Your task to perform on an android device: check storage Image 0: 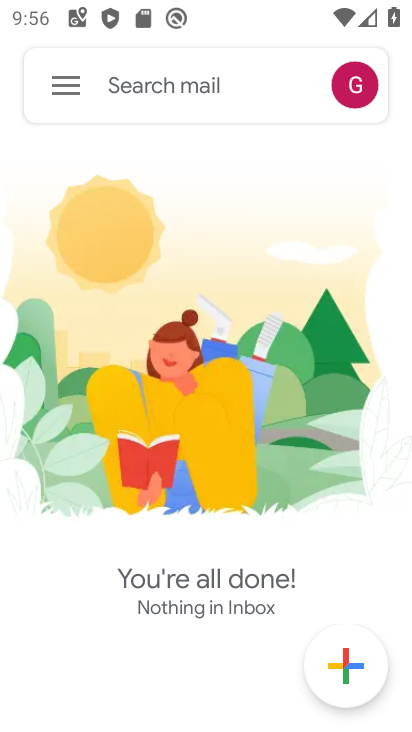
Step 0: press home button
Your task to perform on an android device: check storage Image 1: 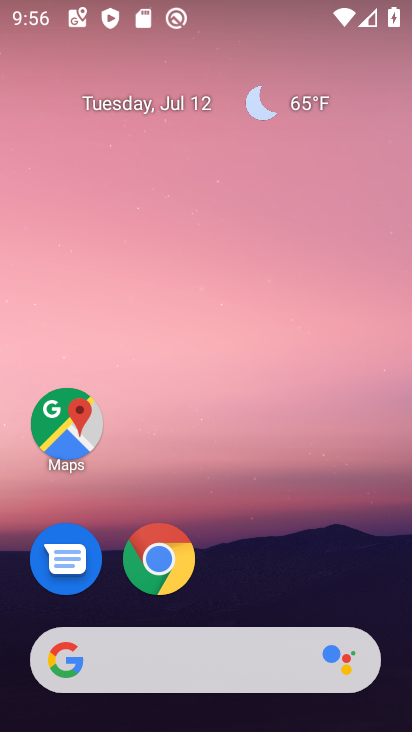
Step 1: drag from (320, 575) to (332, 118)
Your task to perform on an android device: check storage Image 2: 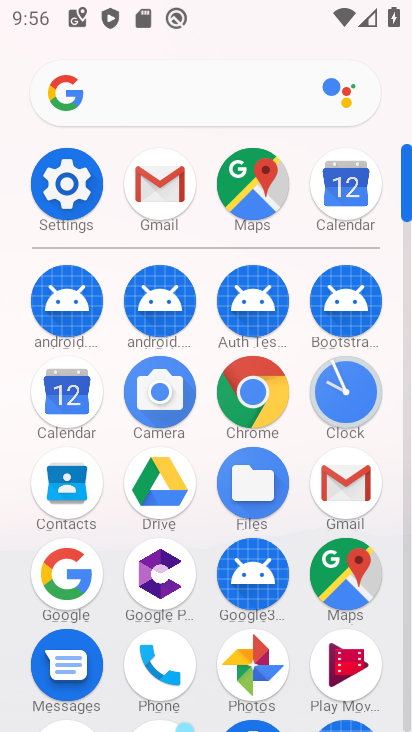
Step 2: click (76, 198)
Your task to perform on an android device: check storage Image 3: 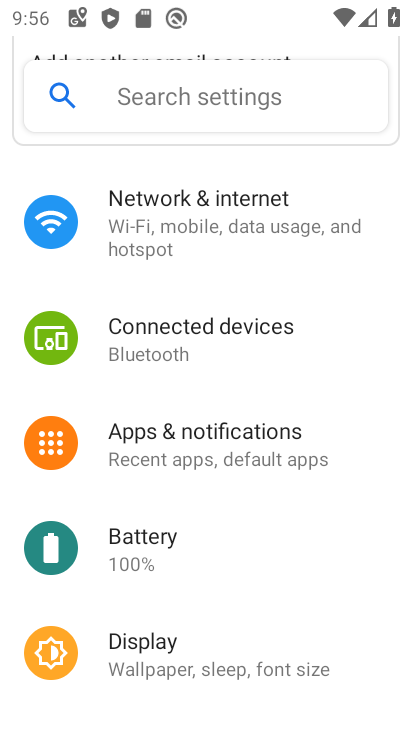
Step 3: drag from (358, 522) to (360, 320)
Your task to perform on an android device: check storage Image 4: 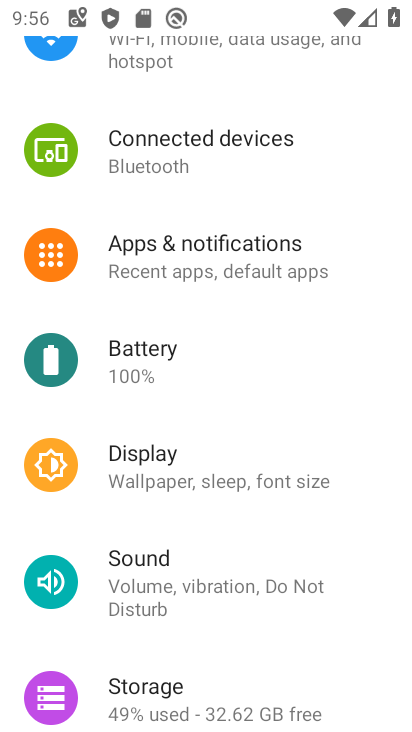
Step 4: drag from (348, 583) to (348, 361)
Your task to perform on an android device: check storage Image 5: 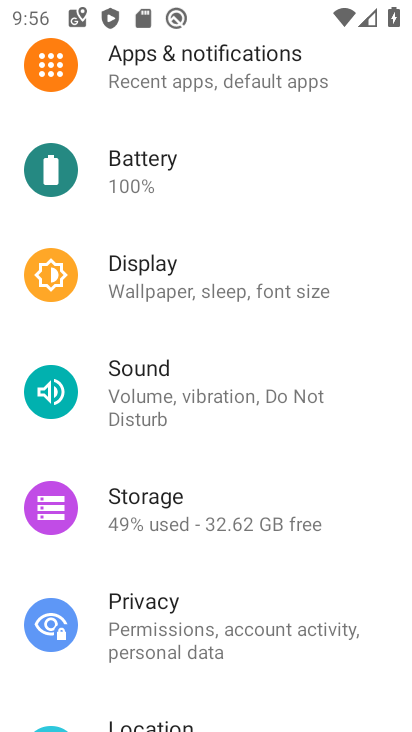
Step 5: drag from (337, 520) to (337, 302)
Your task to perform on an android device: check storage Image 6: 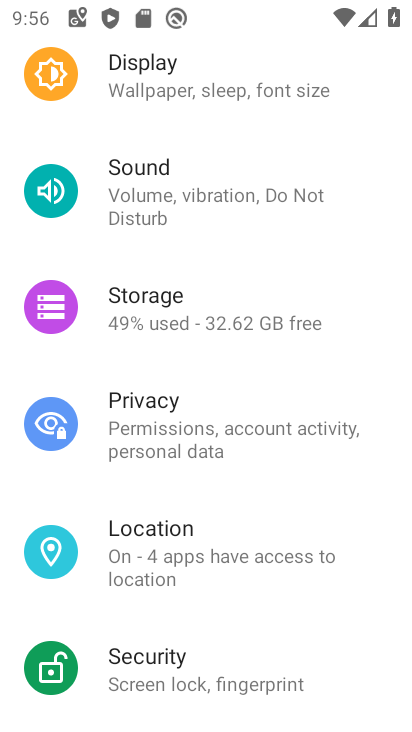
Step 6: drag from (340, 611) to (345, 404)
Your task to perform on an android device: check storage Image 7: 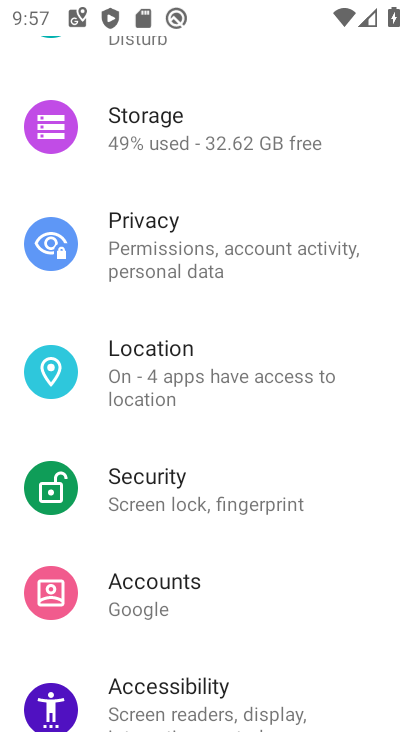
Step 7: drag from (345, 545) to (352, 348)
Your task to perform on an android device: check storage Image 8: 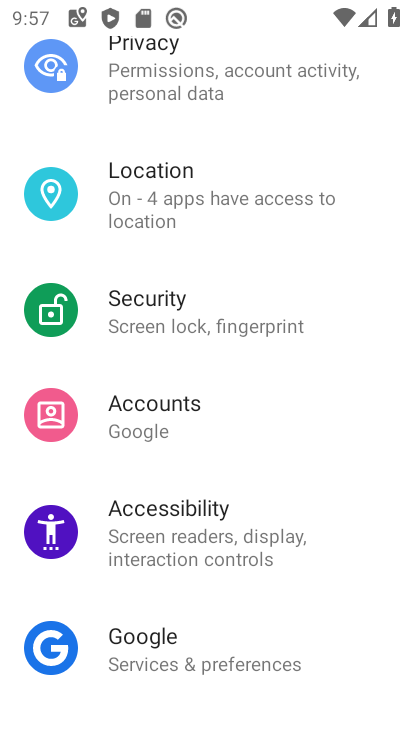
Step 8: drag from (355, 241) to (320, 475)
Your task to perform on an android device: check storage Image 9: 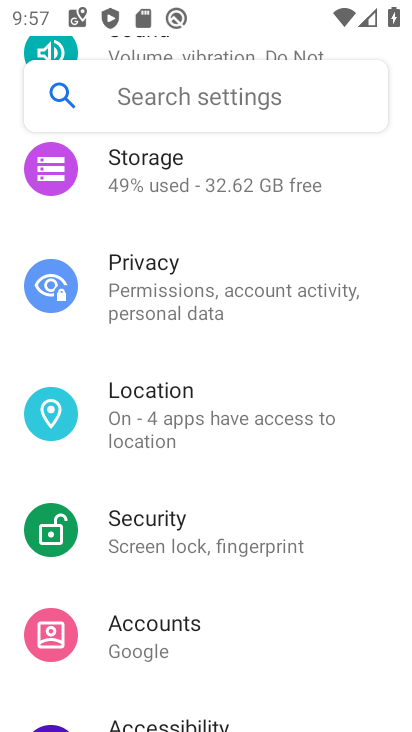
Step 9: drag from (344, 238) to (346, 516)
Your task to perform on an android device: check storage Image 10: 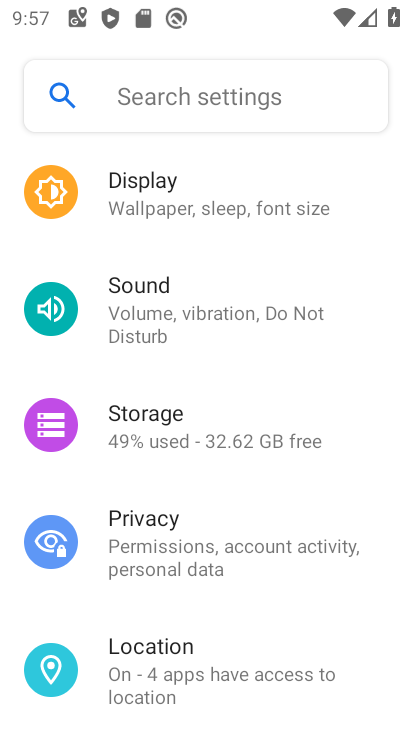
Step 10: drag from (359, 337) to (360, 410)
Your task to perform on an android device: check storage Image 11: 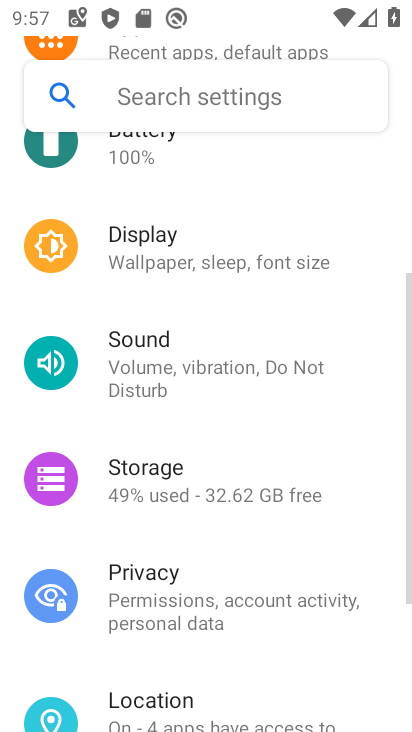
Step 11: click (329, 496)
Your task to perform on an android device: check storage Image 12: 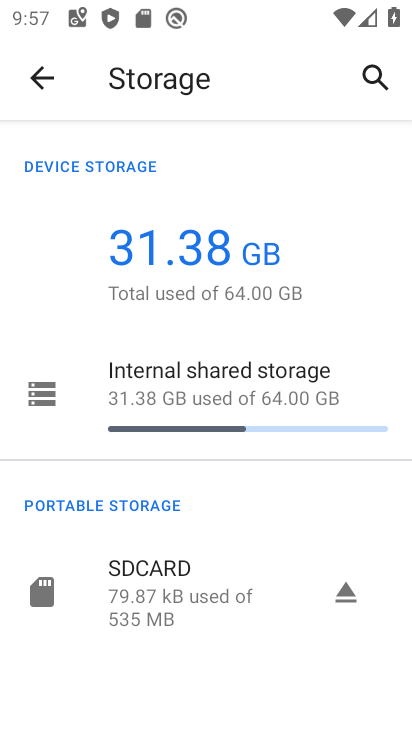
Step 12: task complete